Your task to perform on an android device: Check the weather Image 0: 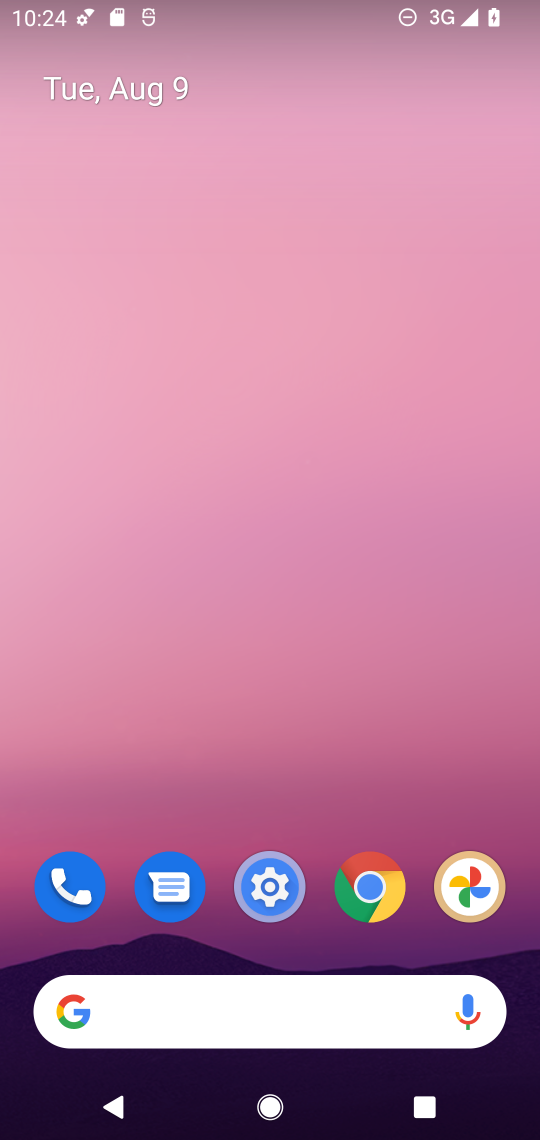
Step 0: drag from (278, 793) to (312, 7)
Your task to perform on an android device: Check the weather Image 1: 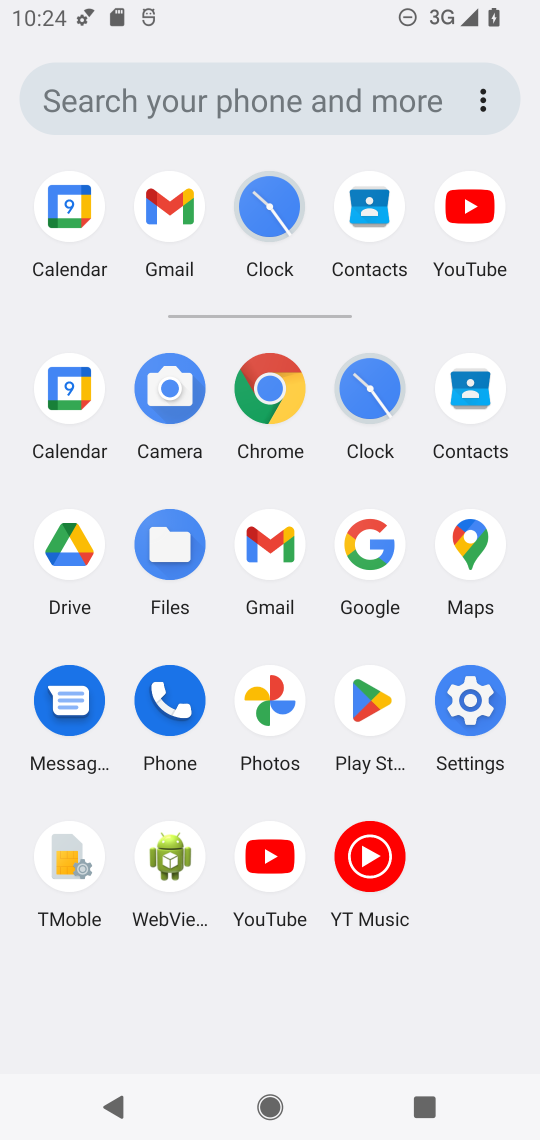
Step 1: click (370, 543)
Your task to perform on an android device: Check the weather Image 2: 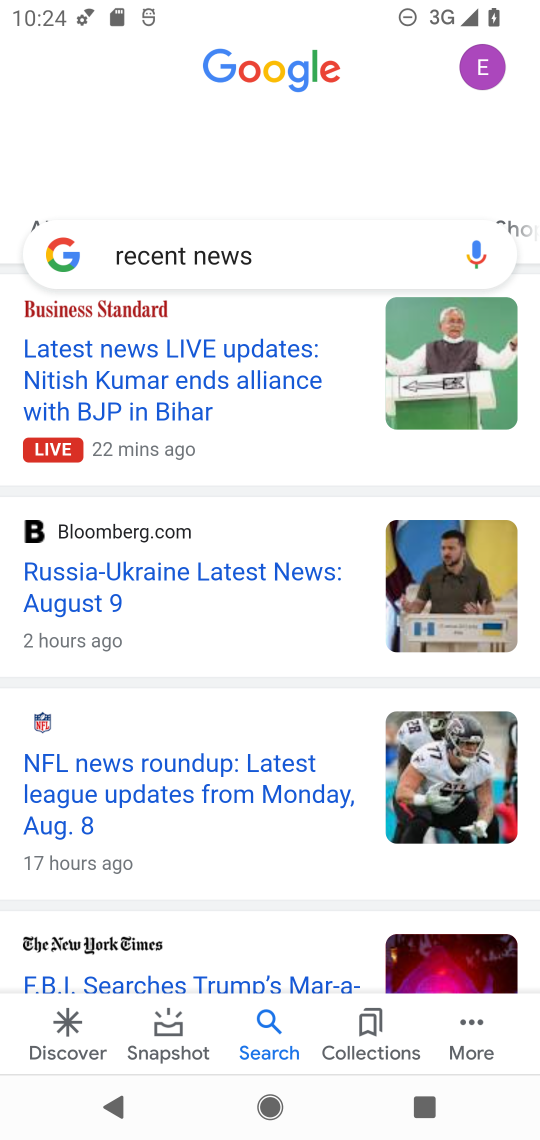
Step 2: click (255, 258)
Your task to perform on an android device: Check the weather Image 3: 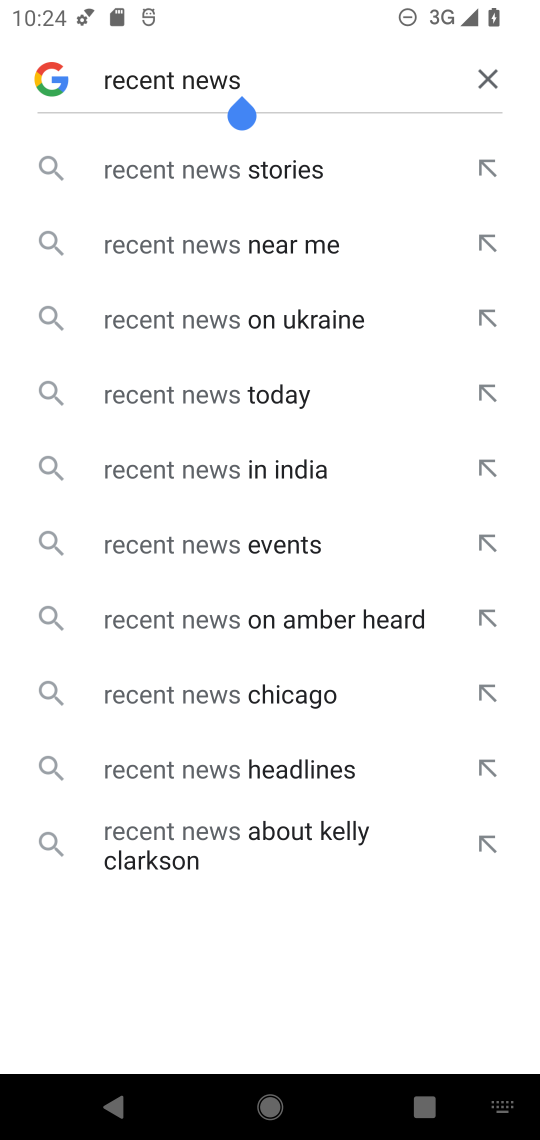
Step 3: click (474, 80)
Your task to perform on an android device: Check the weather Image 4: 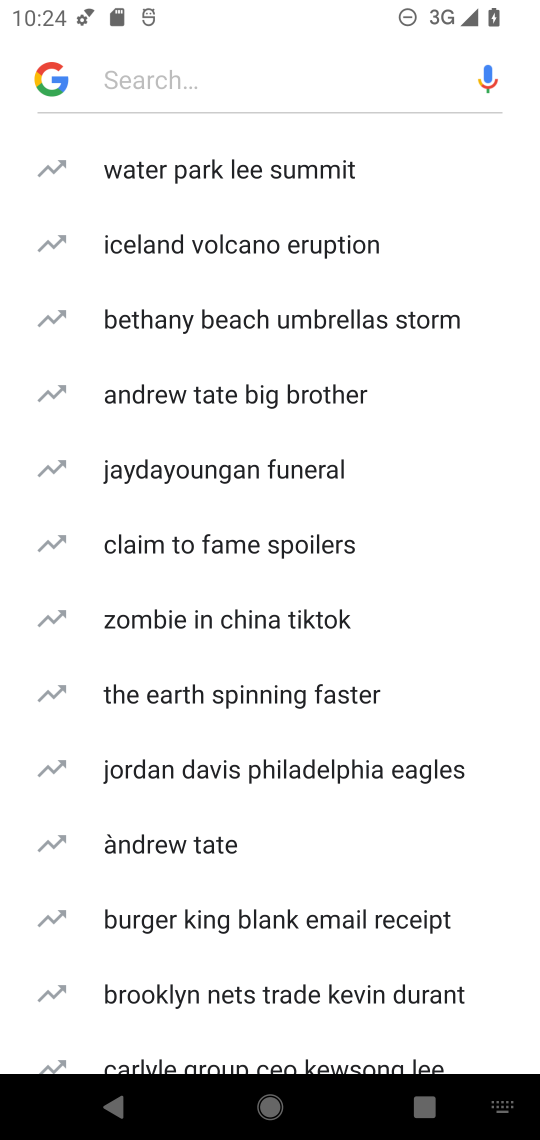
Step 4: type "weather"
Your task to perform on an android device: Check the weather Image 5: 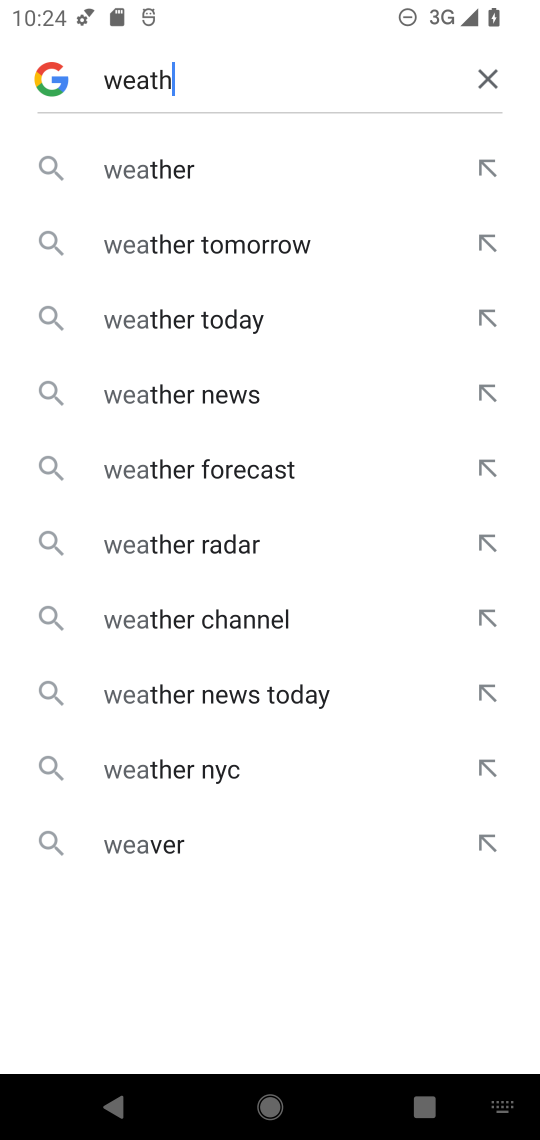
Step 5: type ""
Your task to perform on an android device: Check the weather Image 6: 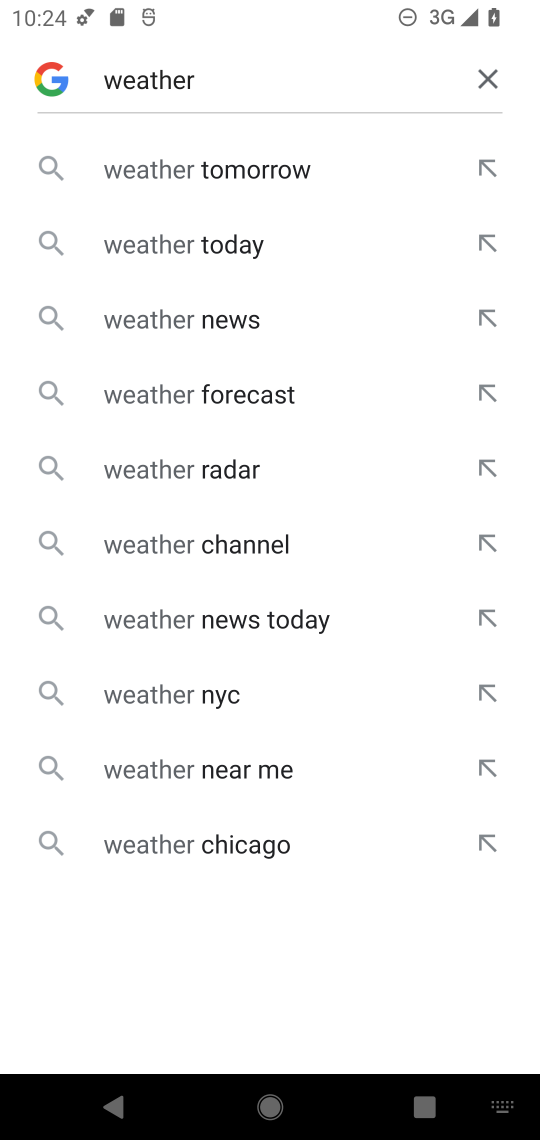
Step 6: click (201, 247)
Your task to perform on an android device: Check the weather Image 7: 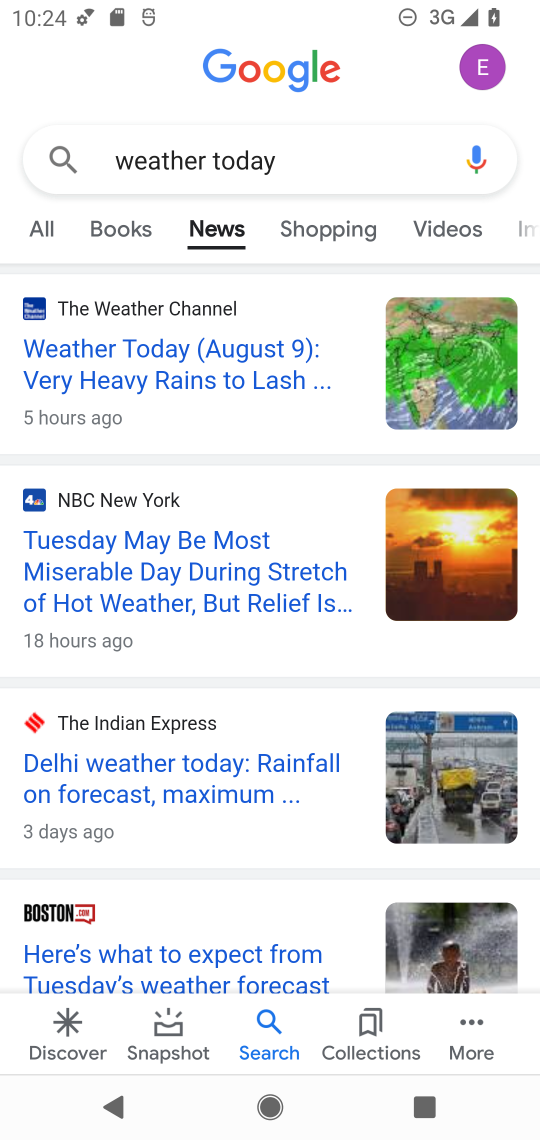
Step 7: click (39, 219)
Your task to perform on an android device: Check the weather Image 8: 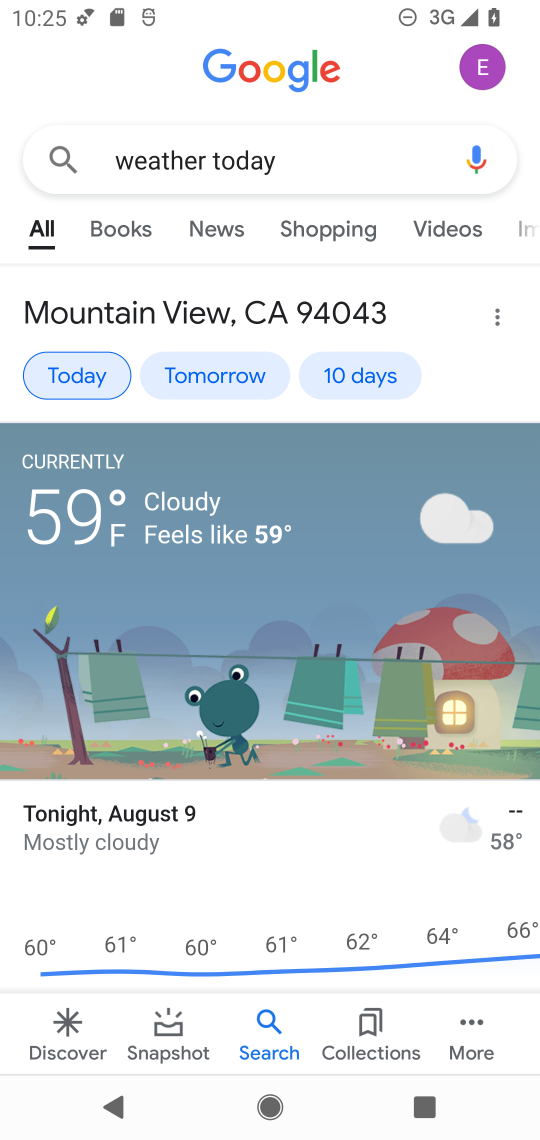
Step 8: task complete